Your task to perform on an android device: set an alarm Image 0: 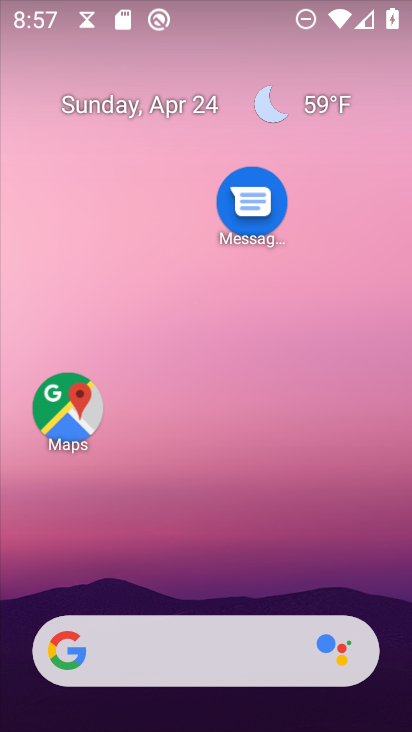
Step 0: drag from (156, 653) to (310, 32)
Your task to perform on an android device: set an alarm Image 1: 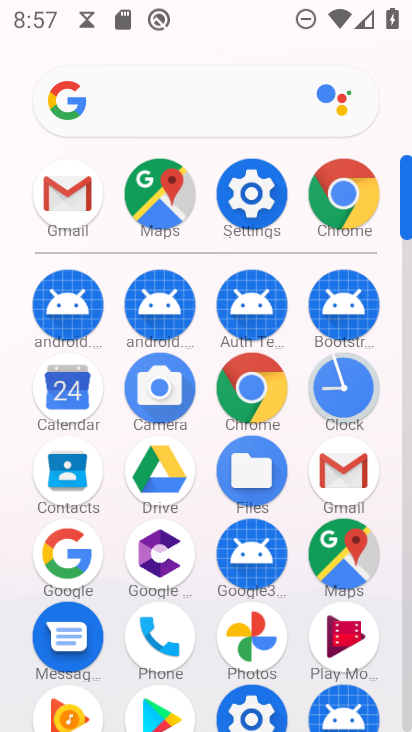
Step 1: click (346, 406)
Your task to perform on an android device: set an alarm Image 2: 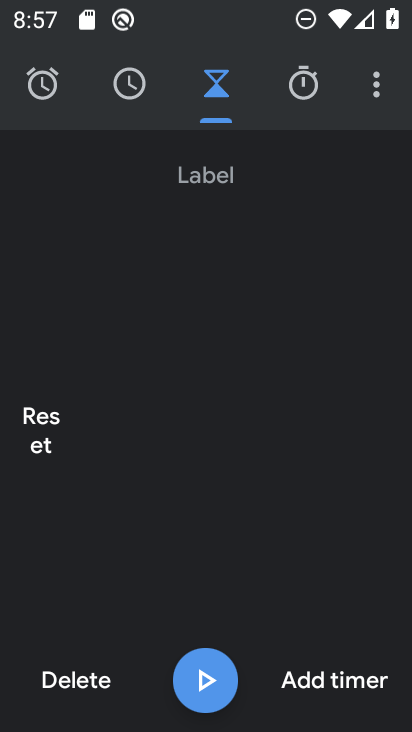
Step 2: click (38, 94)
Your task to perform on an android device: set an alarm Image 3: 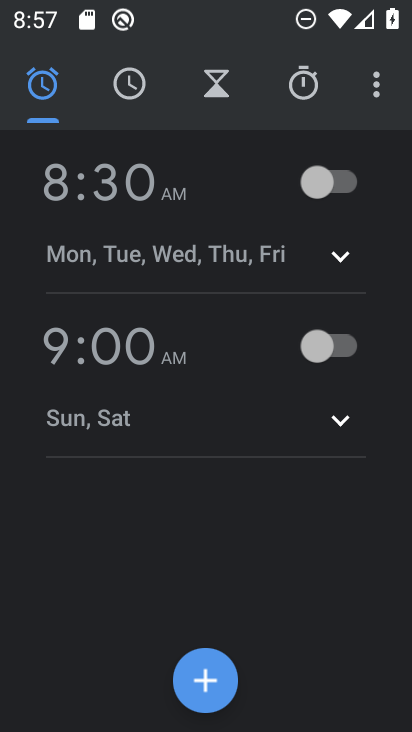
Step 3: click (101, 186)
Your task to perform on an android device: set an alarm Image 4: 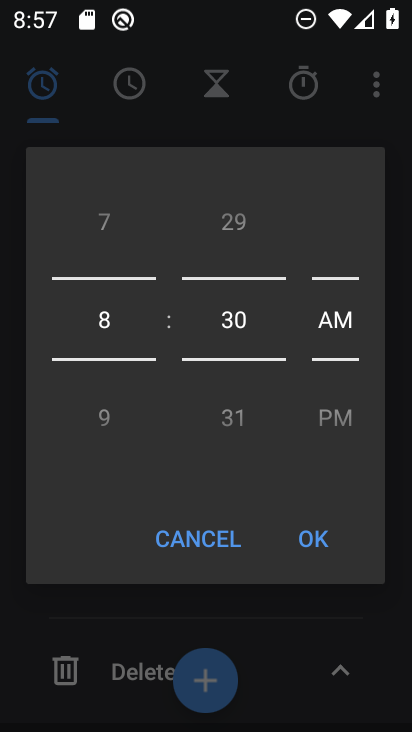
Step 4: drag from (107, 421) to (155, 245)
Your task to perform on an android device: set an alarm Image 5: 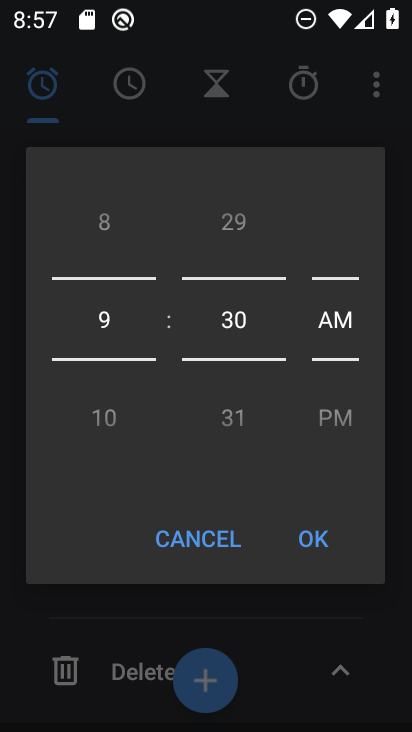
Step 5: drag from (244, 429) to (266, 206)
Your task to perform on an android device: set an alarm Image 6: 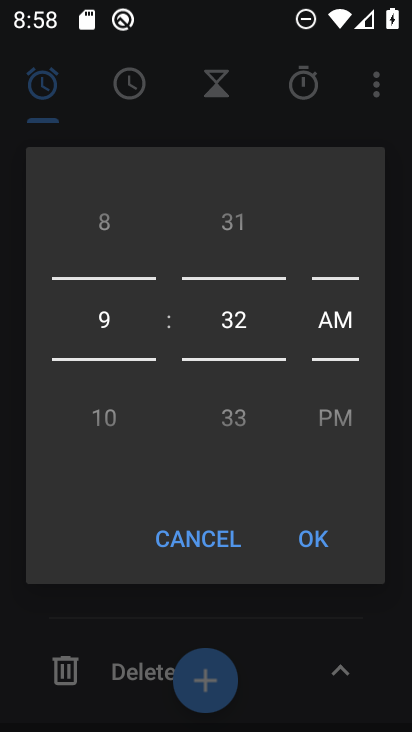
Step 6: drag from (350, 400) to (365, 241)
Your task to perform on an android device: set an alarm Image 7: 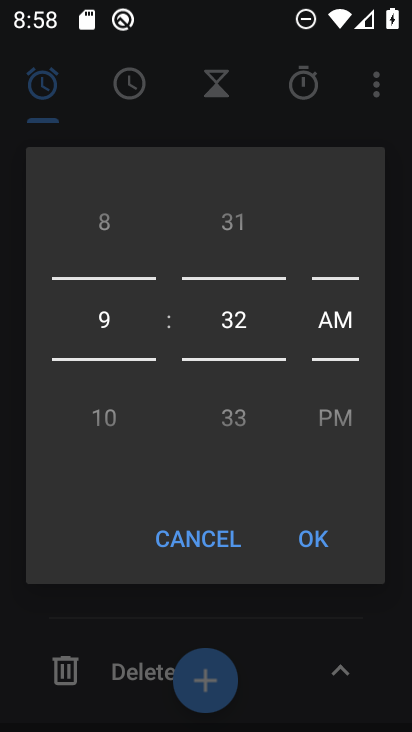
Step 7: drag from (349, 393) to (364, 247)
Your task to perform on an android device: set an alarm Image 8: 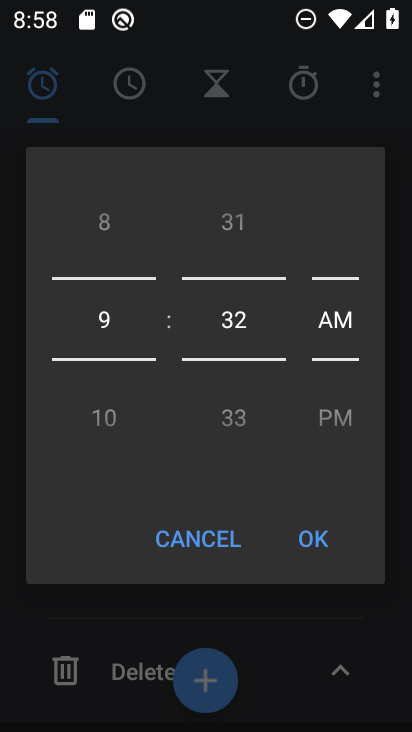
Step 8: drag from (345, 415) to (374, 186)
Your task to perform on an android device: set an alarm Image 9: 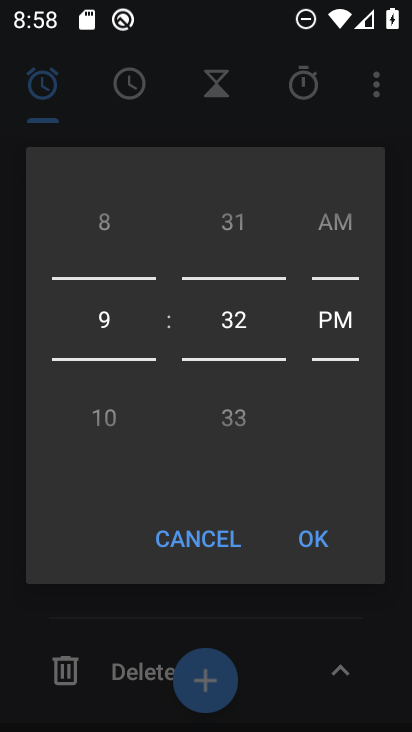
Step 9: click (323, 541)
Your task to perform on an android device: set an alarm Image 10: 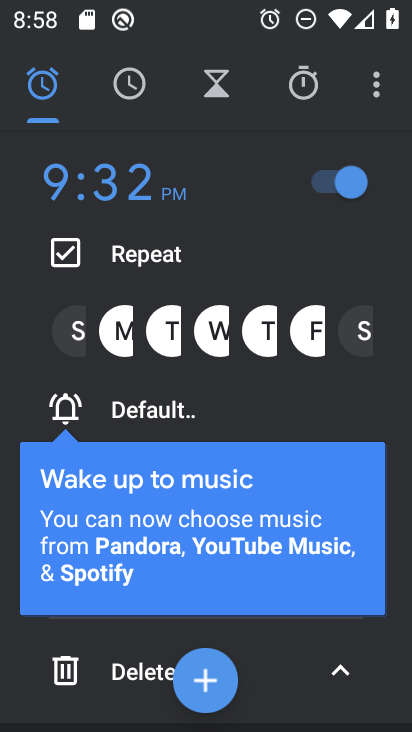
Step 10: task complete